Your task to perform on an android device: toggle sleep mode Image 0: 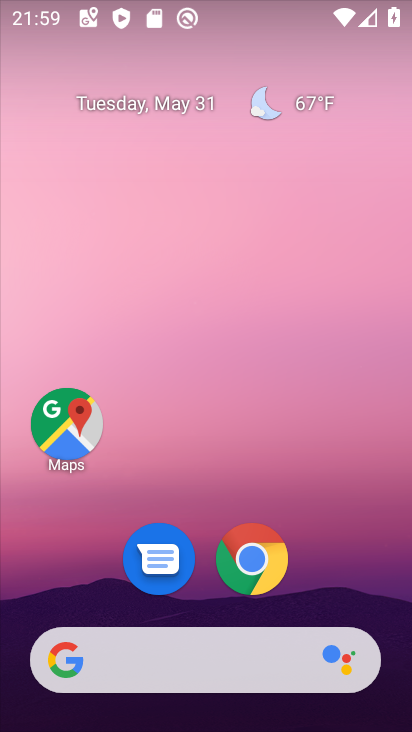
Step 0: drag from (318, 561) to (323, 66)
Your task to perform on an android device: toggle sleep mode Image 1: 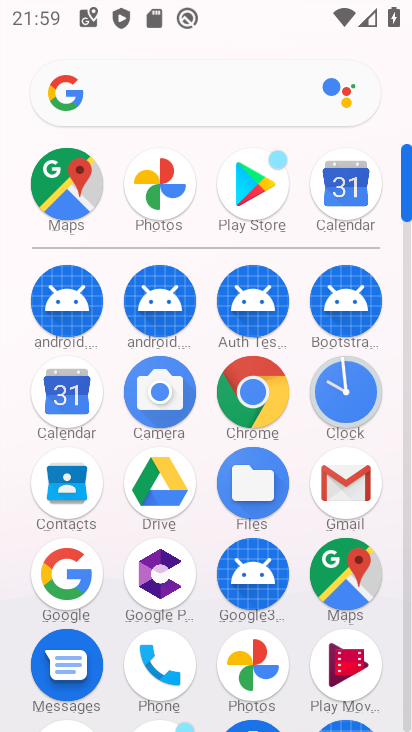
Step 1: drag from (301, 611) to (344, 139)
Your task to perform on an android device: toggle sleep mode Image 2: 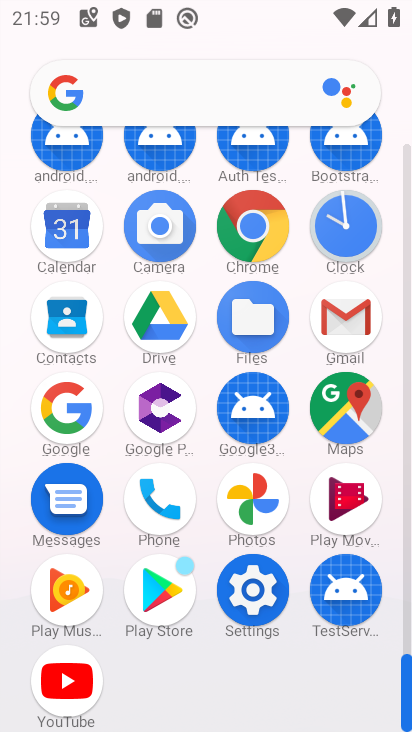
Step 2: click (257, 594)
Your task to perform on an android device: toggle sleep mode Image 3: 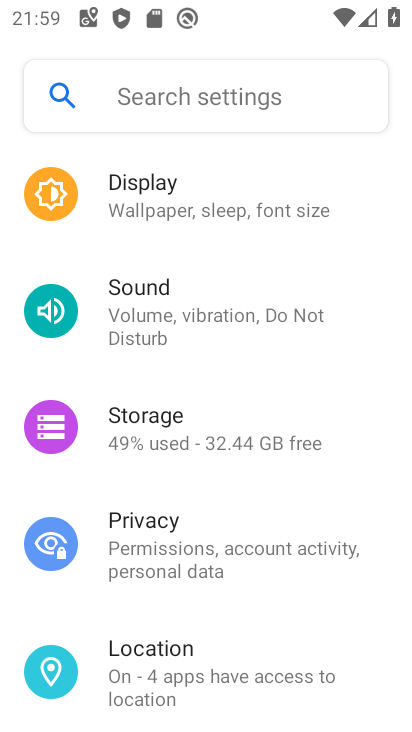
Step 3: click (226, 206)
Your task to perform on an android device: toggle sleep mode Image 4: 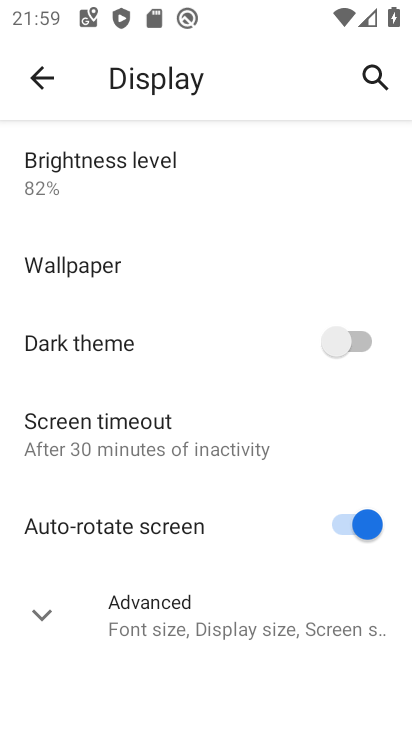
Step 4: click (141, 448)
Your task to perform on an android device: toggle sleep mode Image 5: 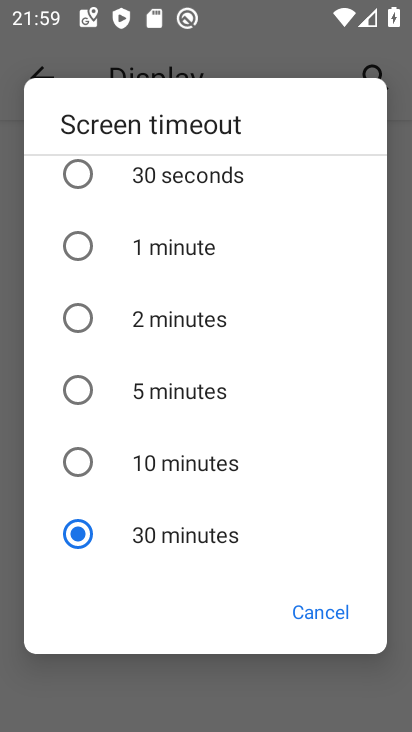
Step 5: click (77, 318)
Your task to perform on an android device: toggle sleep mode Image 6: 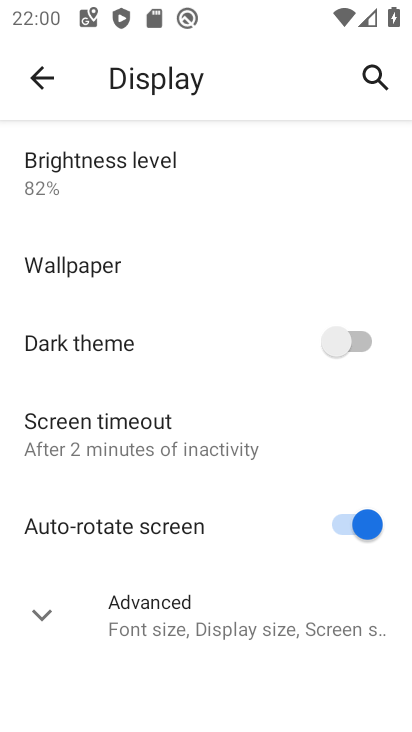
Step 6: task complete